Your task to perform on an android device: Check the weather Image 0: 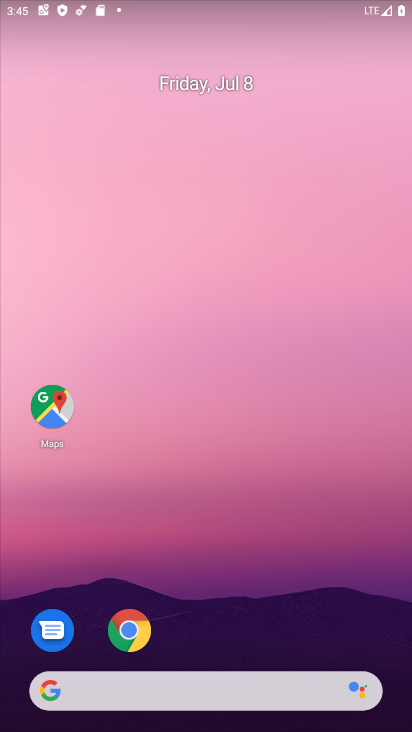
Step 0: drag from (204, 634) to (263, 140)
Your task to perform on an android device: Check the weather Image 1: 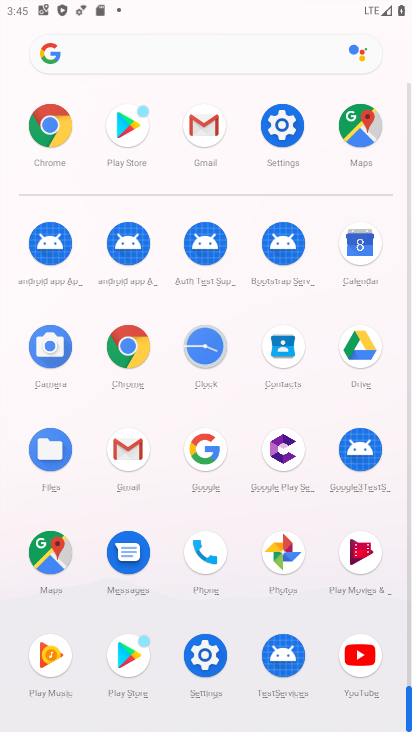
Step 1: click (202, 447)
Your task to perform on an android device: Check the weather Image 2: 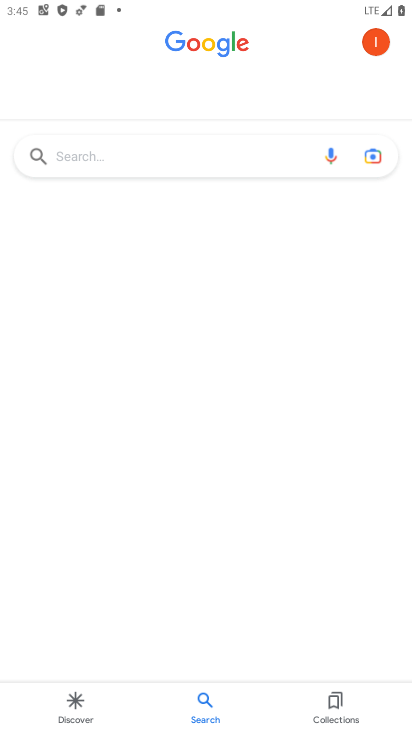
Step 2: click (145, 156)
Your task to perform on an android device: Check the weather Image 3: 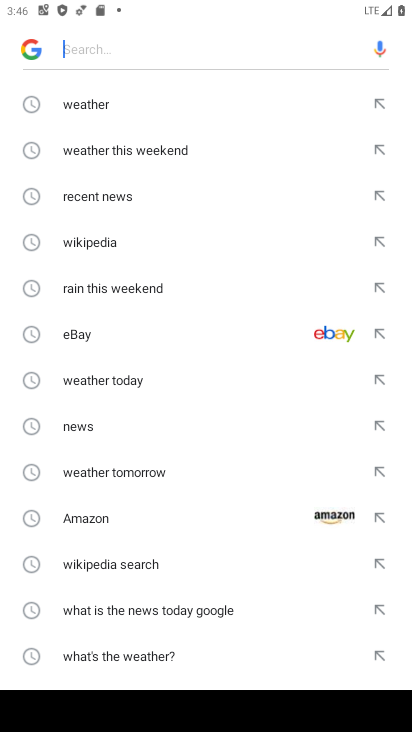
Step 3: click (82, 107)
Your task to perform on an android device: Check the weather Image 4: 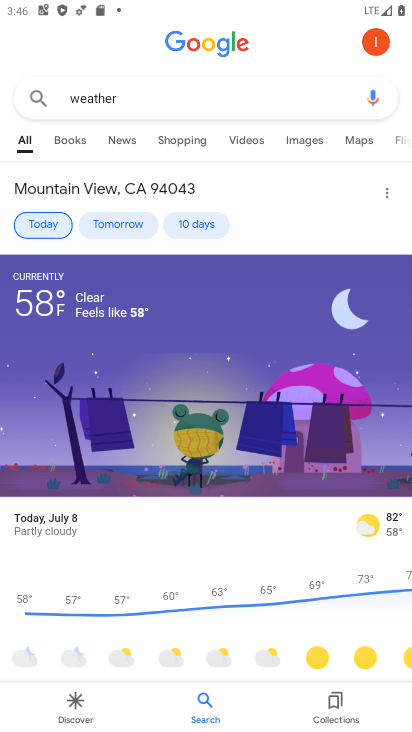
Step 4: task complete